Your task to perform on an android device: turn on showing notifications on the lock screen Image 0: 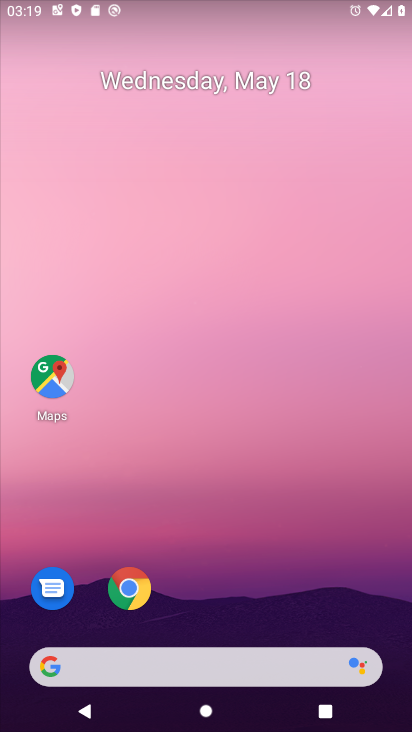
Step 0: press home button
Your task to perform on an android device: turn on showing notifications on the lock screen Image 1: 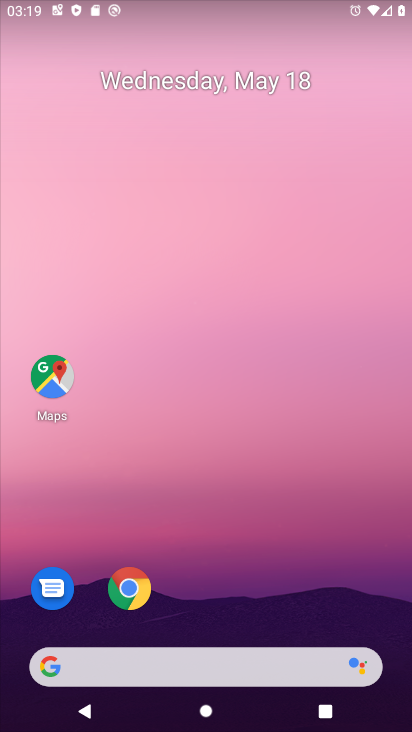
Step 1: drag from (42, 642) to (286, 186)
Your task to perform on an android device: turn on showing notifications on the lock screen Image 2: 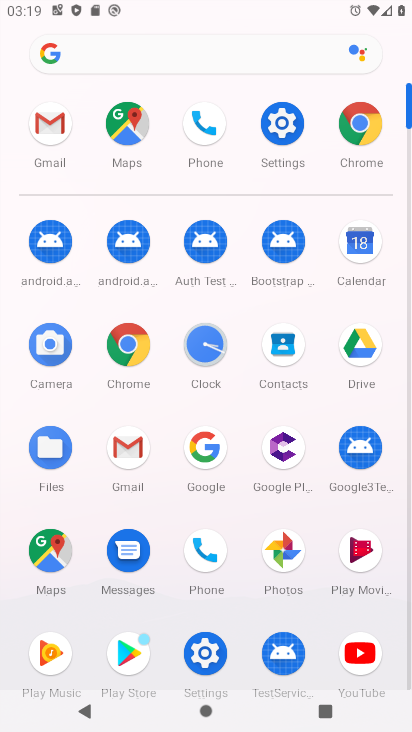
Step 2: click (273, 122)
Your task to perform on an android device: turn on showing notifications on the lock screen Image 3: 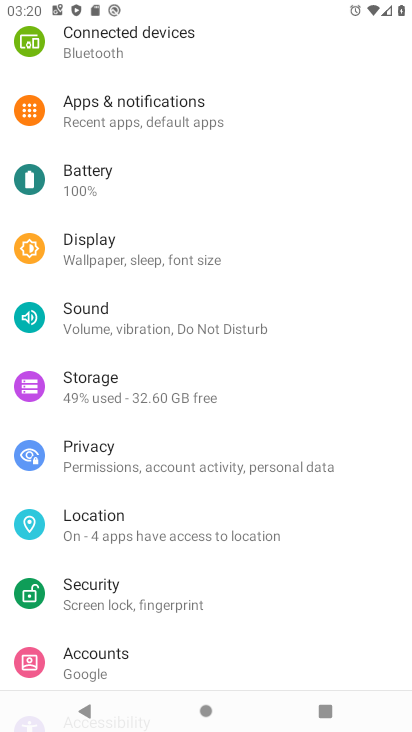
Step 3: click (267, 107)
Your task to perform on an android device: turn on showing notifications on the lock screen Image 4: 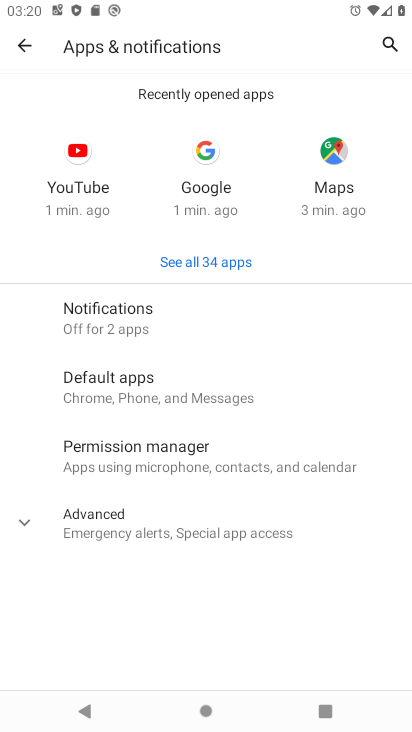
Step 4: click (242, 313)
Your task to perform on an android device: turn on showing notifications on the lock screen Image 5: 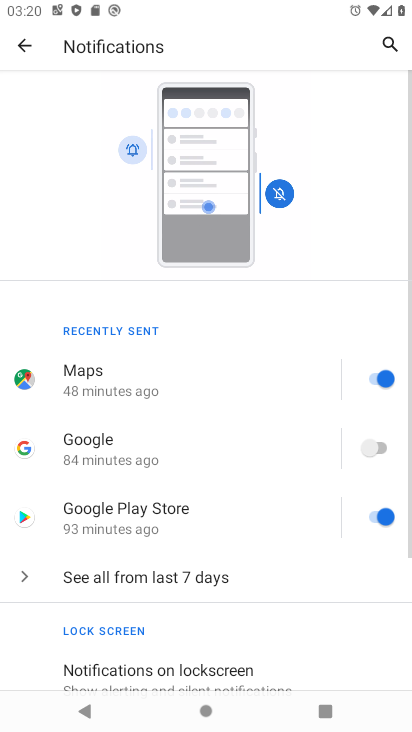
Step 5: click (142, 669)
Your task to perform on an android device: turn on showing notifications on the lock screen Image 6: 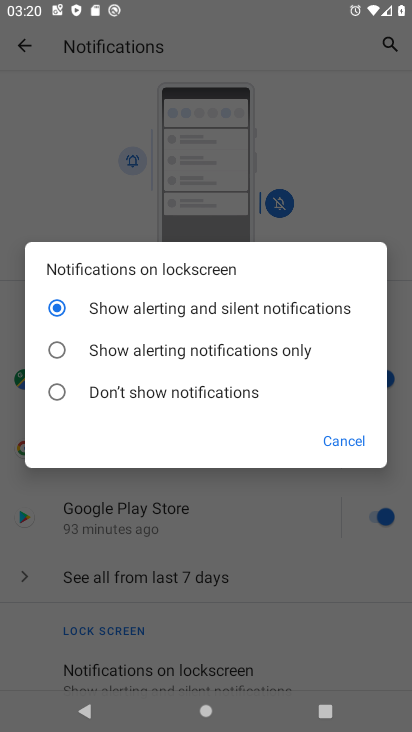
Step 6: task complete